Your task to perform on an android device: allow cookies in the chrome app Image 0: 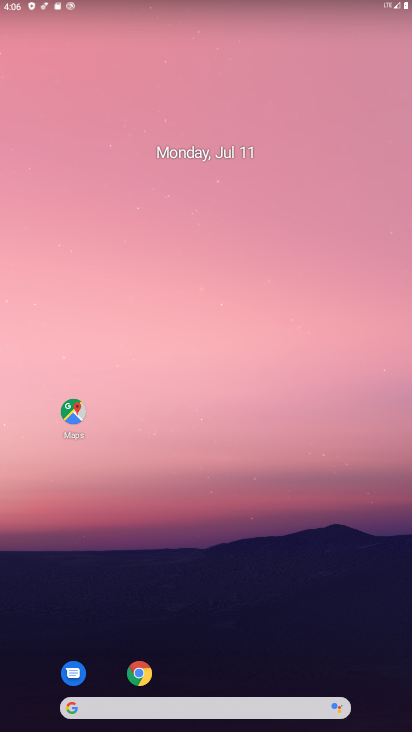
Step 0: drag from (369, 701) to (279, 296)
Your task to perform on an android device: allow cookies in the chrome app Image 1: 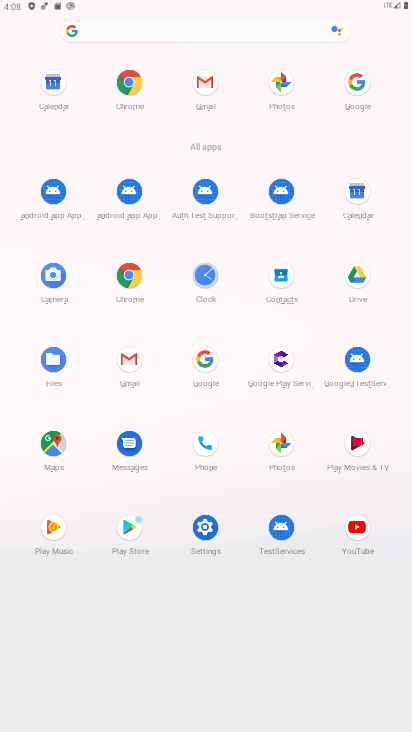
Step 1: click (130, 281)
Your task to perform on an android device: allow cookies in the chrome app Image 2: 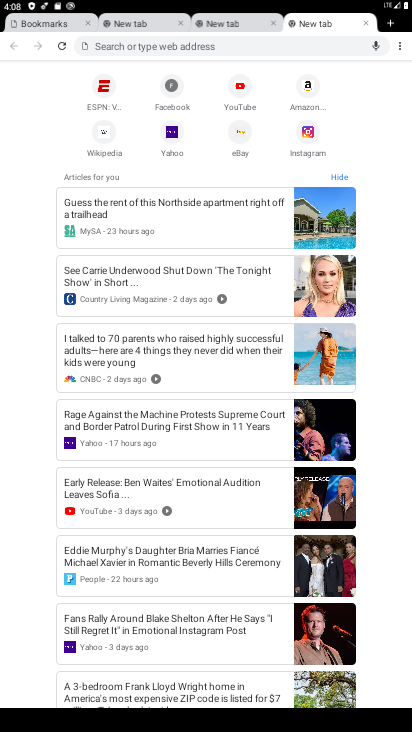
Step 2: click (396, 45)
Your task to perform on an android device: allow cookies in the chrome app Image 3: 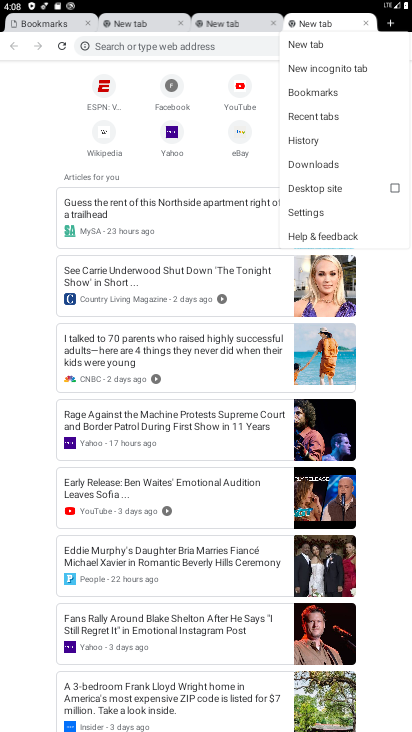
Step 3: click (320, 140)
Your task to perform on an android device: allow cookies in the chrome app Image 4: 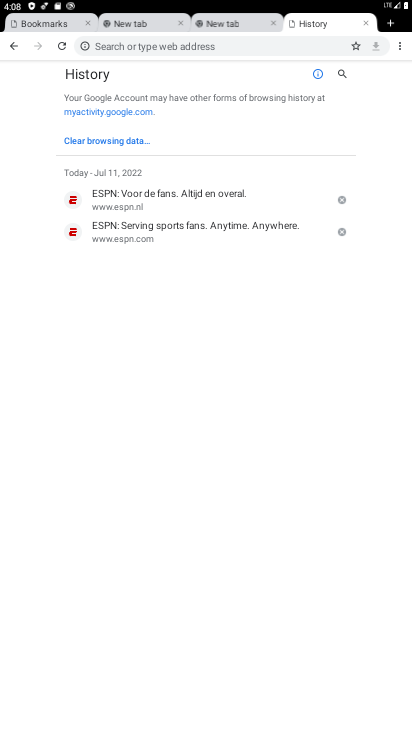
Step 4: click (103, 138)
Your task to perform on an android device: allow cookies in the chrome app Image 5: 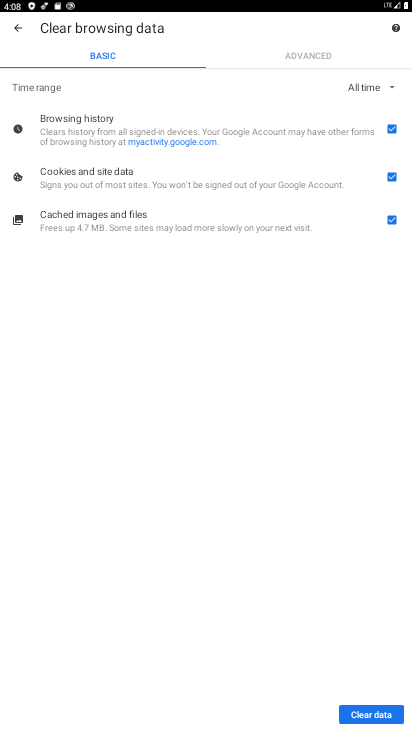
Step 5: task complete